Your task to perform on an android device: turn notification dots off Image 0: 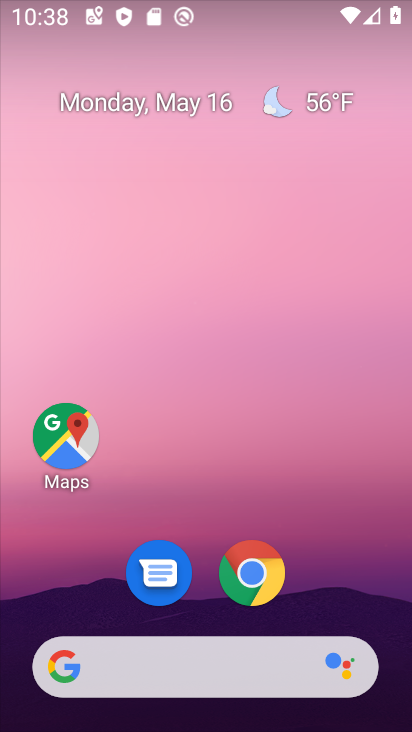
Step 0: drag from (213, 584) to (333, 38)
Your task to perform on an android device: turn notification dots off Image 1: 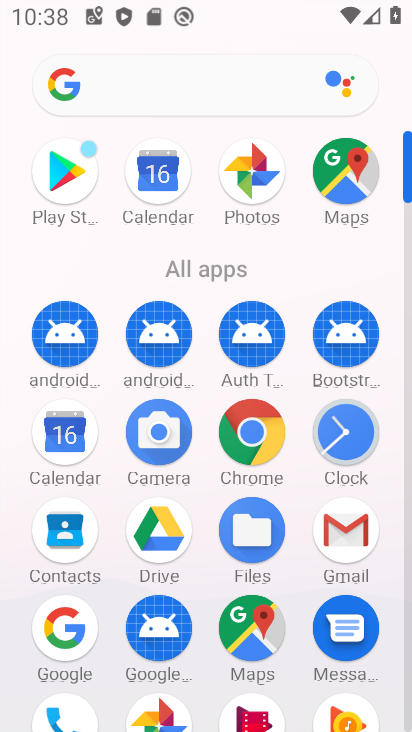
Step 1: drag from (274, 344) to (317, 19)
Your task to perform on an android device: turn notification dots off Image 2: 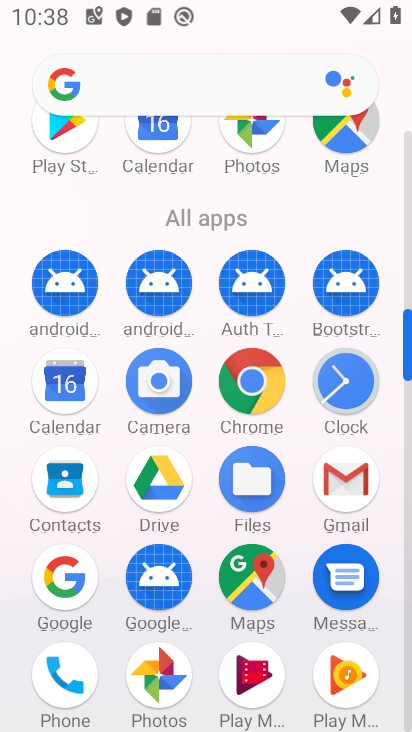
Step 2: drag from (278, 562) to (291, 183)
Your task to perform on an android device: turn notification dots off Image 3: 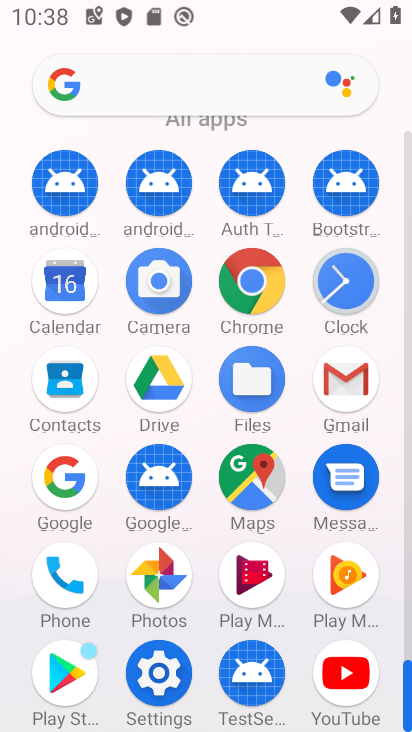
Step 3: click (149, 674)
Your task to perform on an android device: turn notification dots off Image 4: 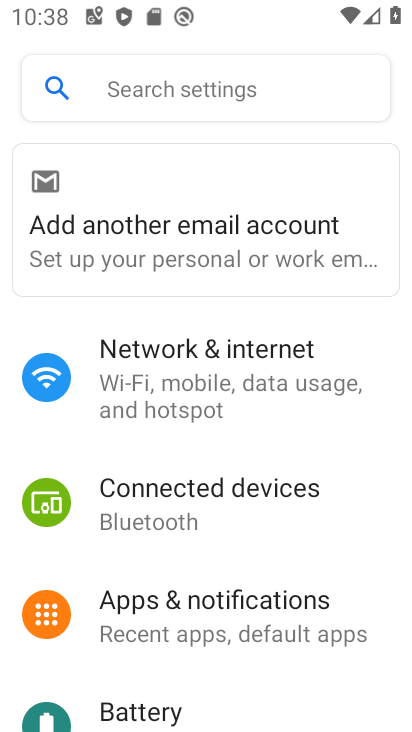
Step 4: click (263, 607)
Your task to perform on an android device: turn notification dots off Image 5: 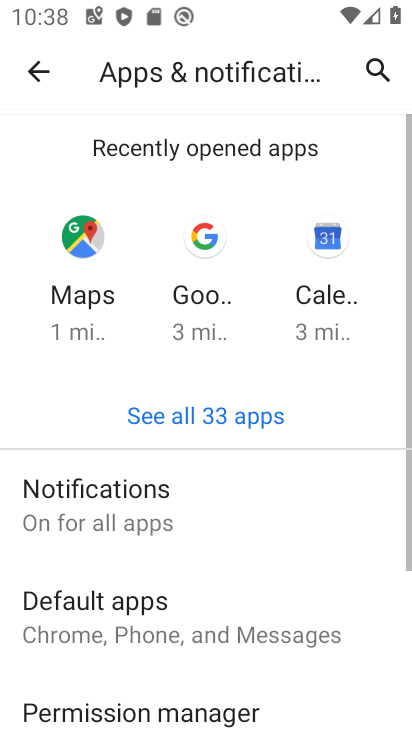
Step 5: drag from (276, 665) to (322, 63)
Your task to perform on an android device: turn notification dots off Image 6: 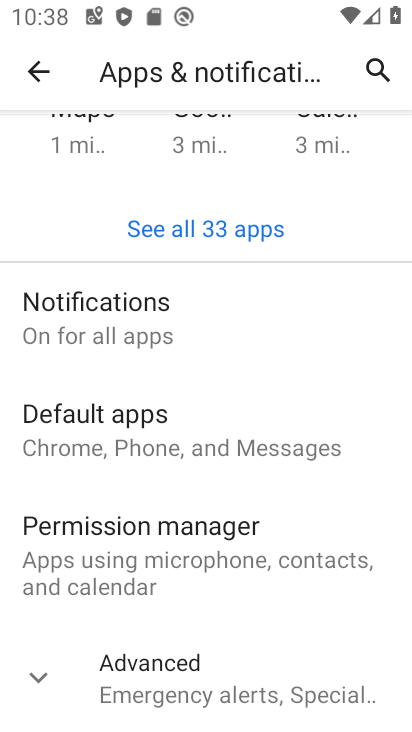
Step 6: click (219, 318)
Your task to perform on an android device: turn notification dots off Image 7: 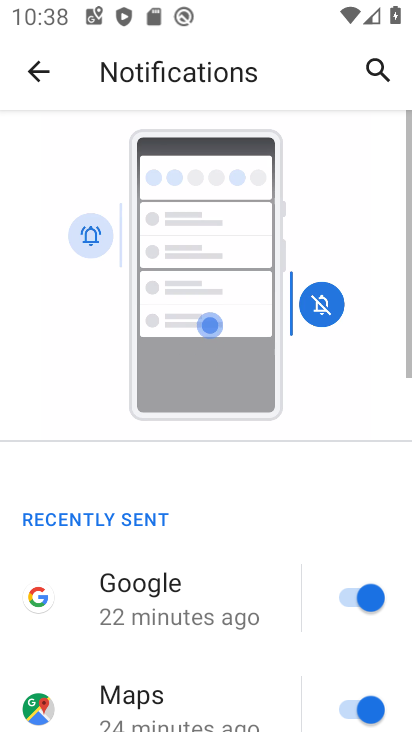
Step 7: drag from (247, 594) to (331, 6)
Your task to perform on an android device: turn notification dots off Image 8: 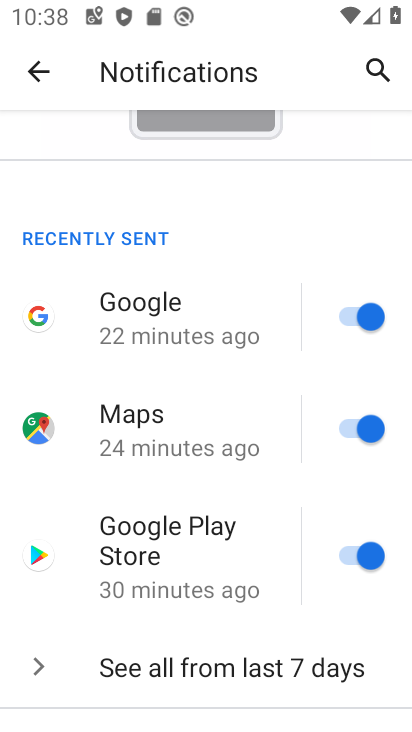
Step 8: drag from (221, 638) to (251, 8)
Your task to perform on an android device: turn notification dots off Image 9: 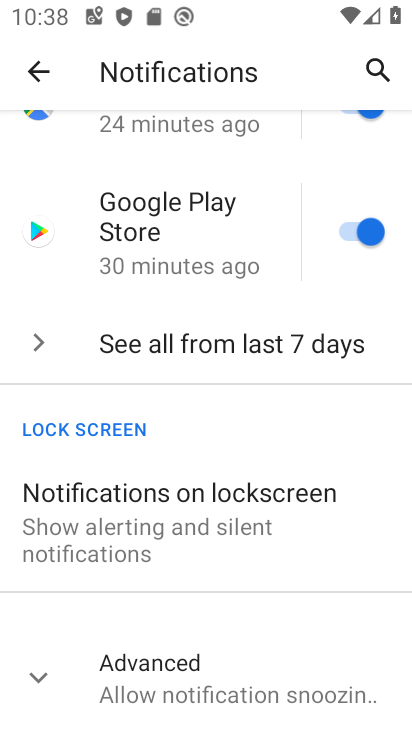
Step 9: click (218, 697)
Your task to perform on an android device: turn notification dots off Image 10: 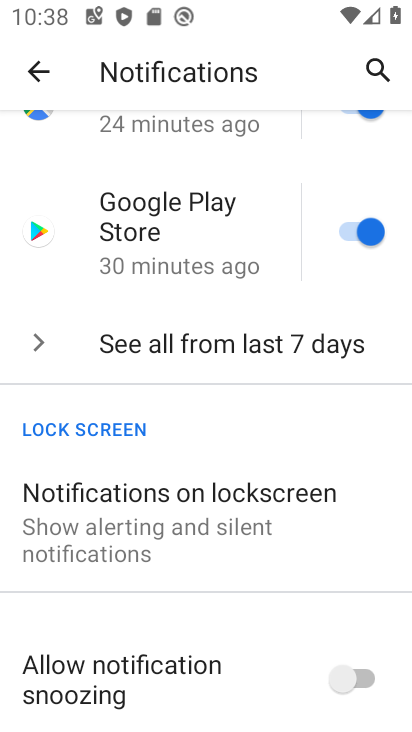
Step 10: drag from (283, 656) to (306, 64)
Your task to perform on an android device: turn notification dots off Image 11: 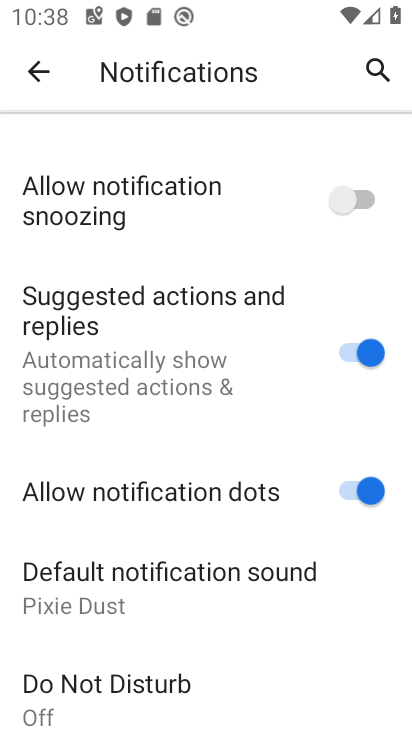
Step 11: click (377, 486)
Your task to perform on an android device: turn notification dots off Image 12: 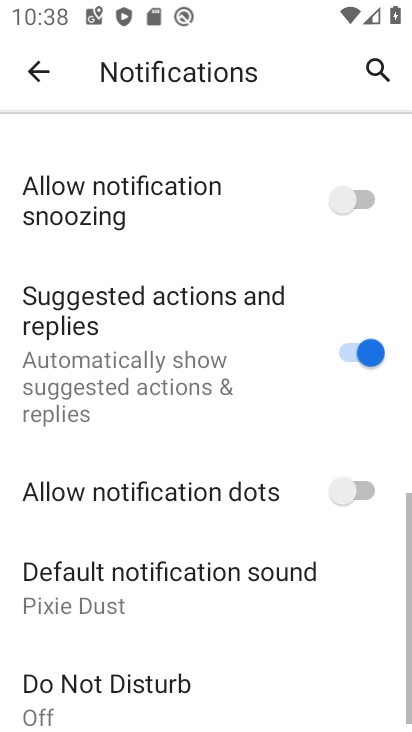
Step 12: task complete